Your task to perform on an android device: turn on sleep mode Image 0: 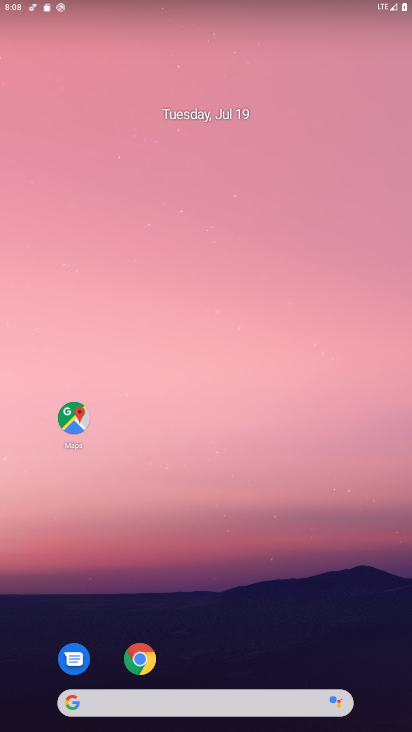
Step 0: drag from (161, 232) to (63, 9)
Your task to perform on an android device: turn on sleep mode Image 1: 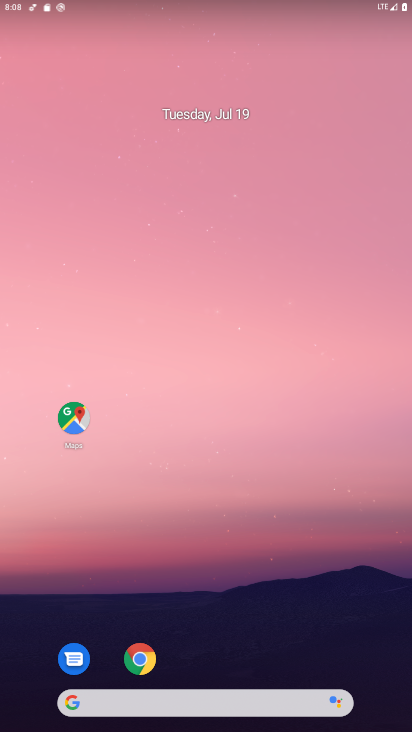
Step 1: drag from (221, 628) to (359, 20)
Your task to perform on an android device: turn on sleep mode Image 2: 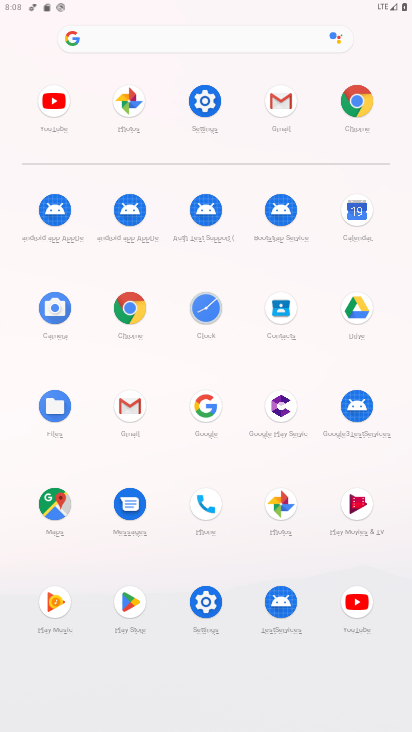
Step 2: click (200, 107)
Your task to perform on an android device: turn on sleep mode Image 3: 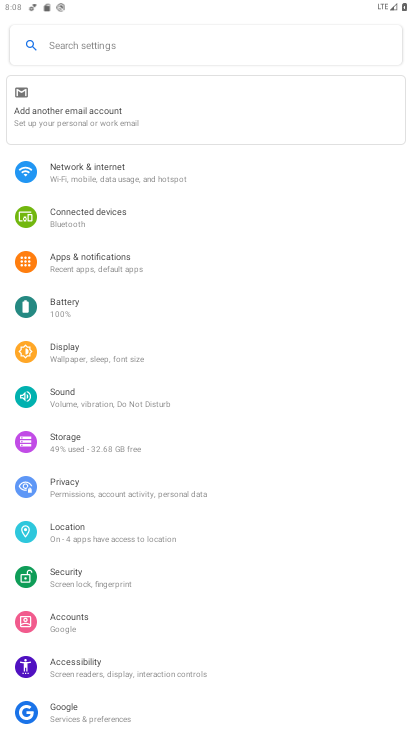
Step 3: click (189, 42)
Your task to perform on an android device: turn on sleep mode Image 4: 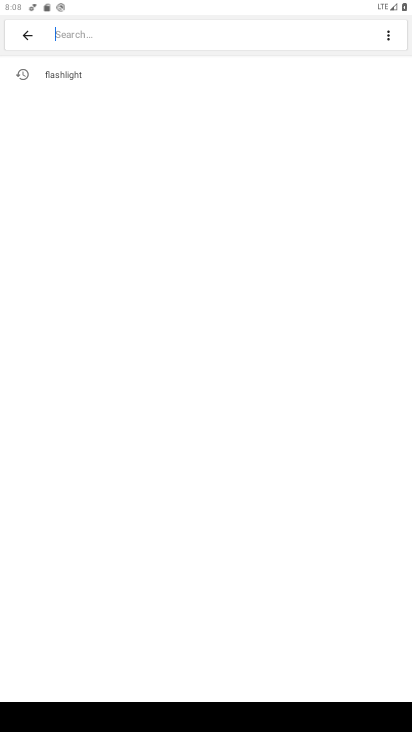
Step 4: type "sleep mode"
Your task to perform on an android device: turn on sleep mode Image 5: 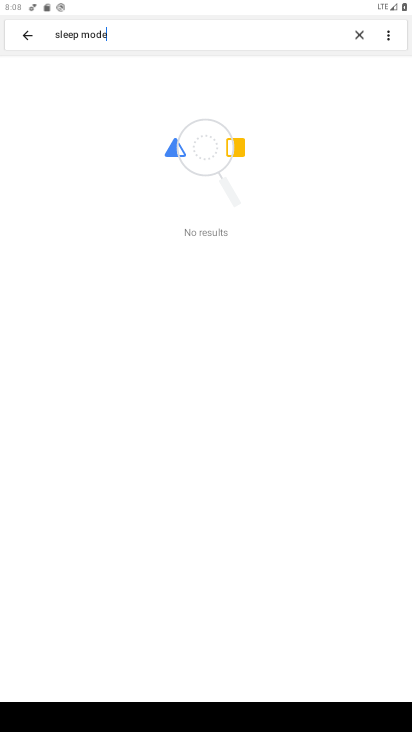
Step 5: task complete